Your task to perform on an android device: change the clock display to analog Image 0: 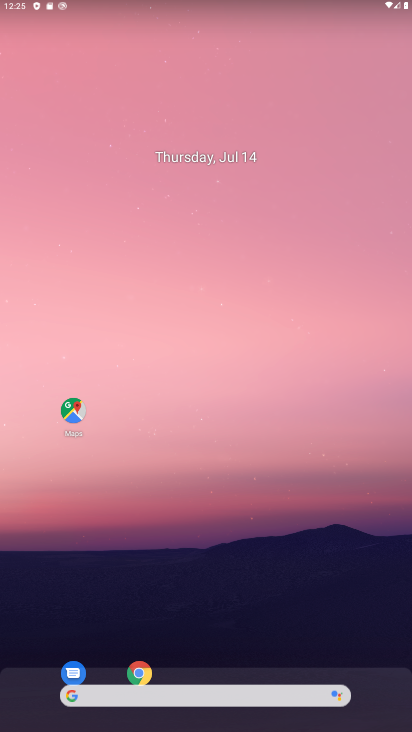
Step 0: drag from (227, 691) to (288, 192)
Your task to perform on an android device: change the clock display to analog Image 1: 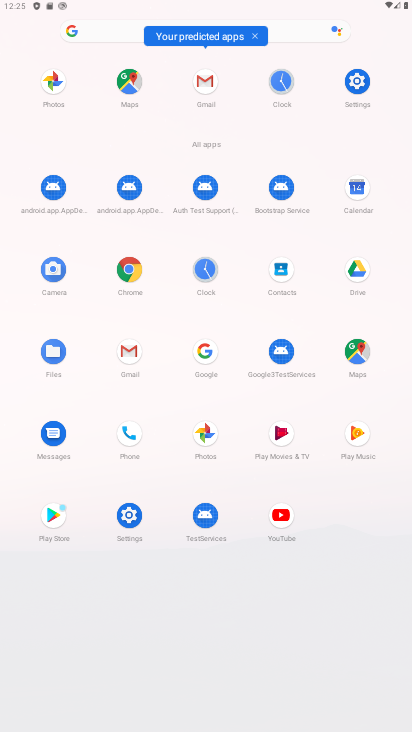
Step 1: click (212, 269)
Your task to perform on an android device: change the clock display to analog Image 2: 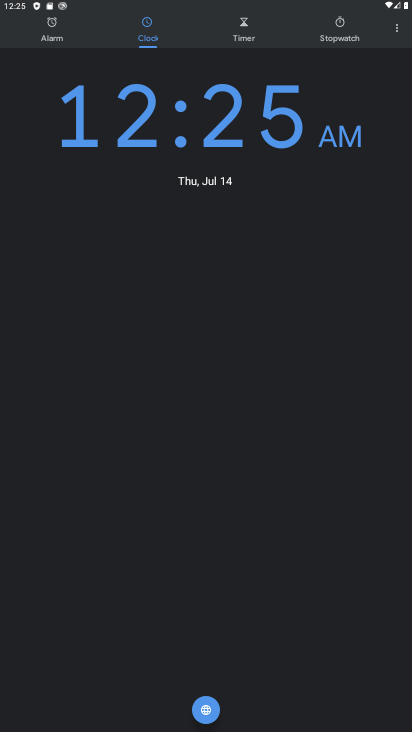
Step 2: click (395, 25)
Your task to perform on an android device: change the clock display to analog Image 3: 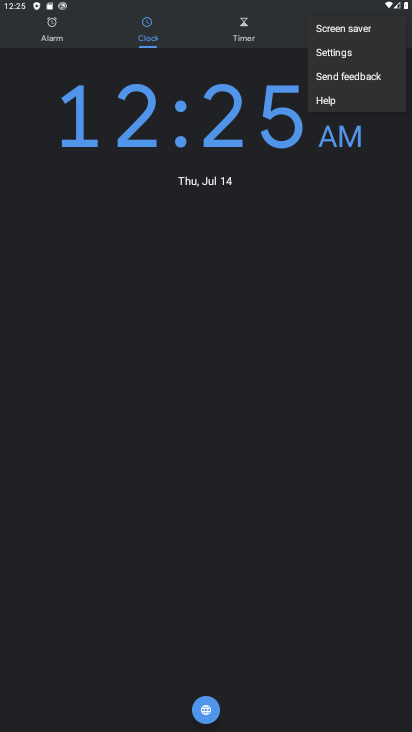
Step 3: click (385, 44)
Your task to perform on an android device: change the clock display to analog Image 4: 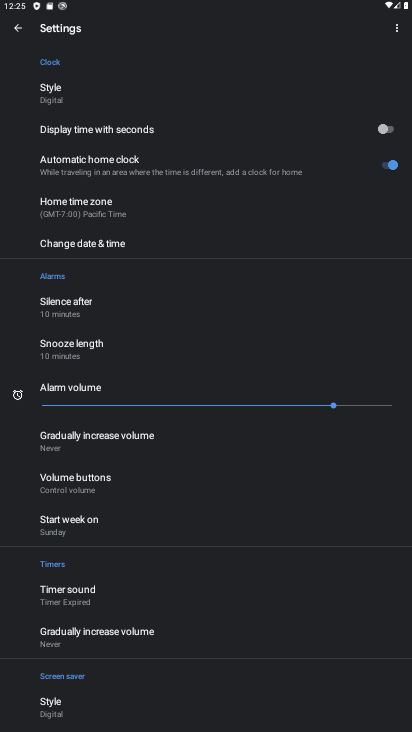
Step 4: click (125, 93)
Your task to perform on an android device: change the clock display to analog Image 5: 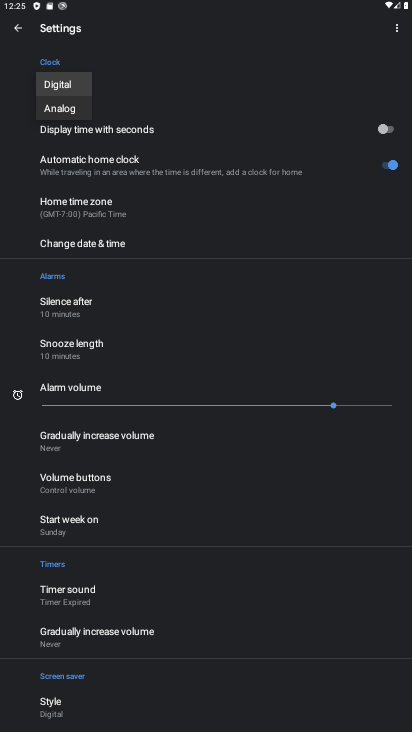
Step 5: click (84, 105)
Your task to perform on an android device: change the clock display to analog Image 6: 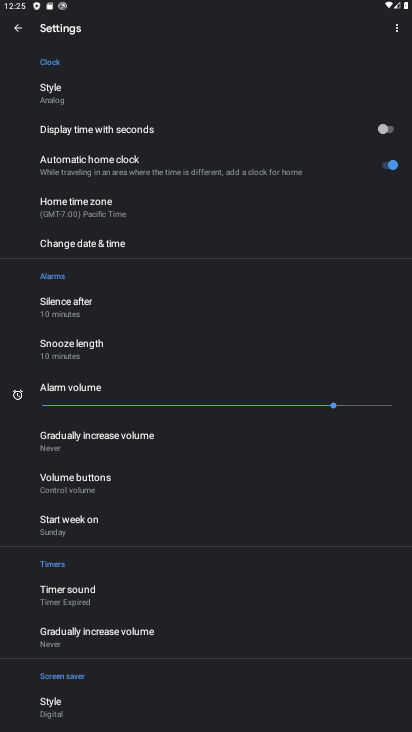
Step 6: task complete